Your task to perform on an android device: change the clock display to show seconds Image 0: 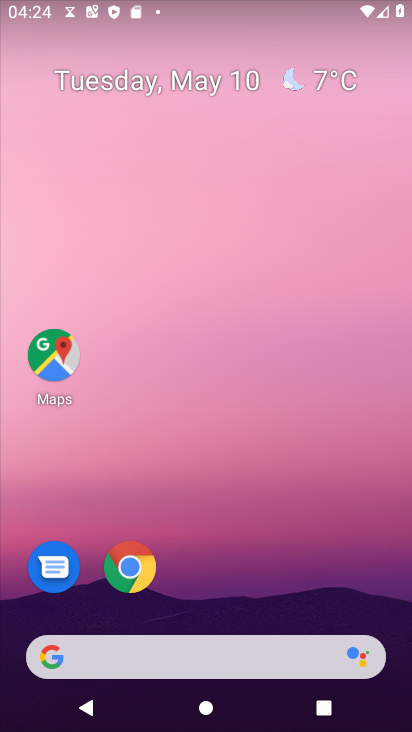
Step 0: drag from (244, 587) to (246, 32)
Your task to perform on an android device: change the clock display to show seconds Image 1: 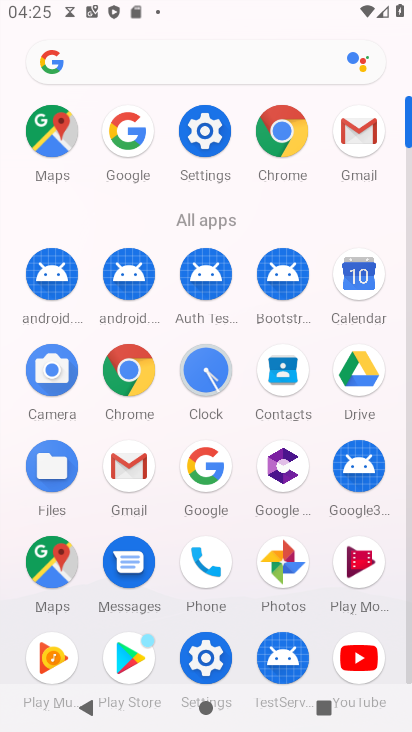
Step 1: click (205, 370)
Your task to perform on an android device: change the clock display to show seconds Image 2: 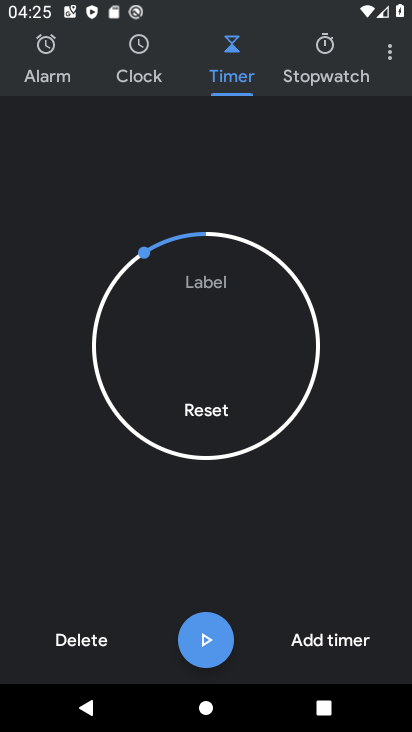
Step 2: click (392, 56)
Your task to perform on an android device: change the clock display to show seconds Image 3: 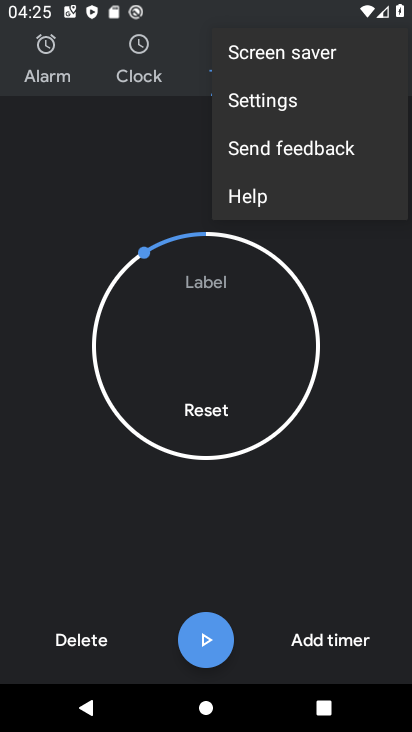
Step 3: click (272, 100)
Your task to perform on an android device: change the clock display to show seconds Image 4: 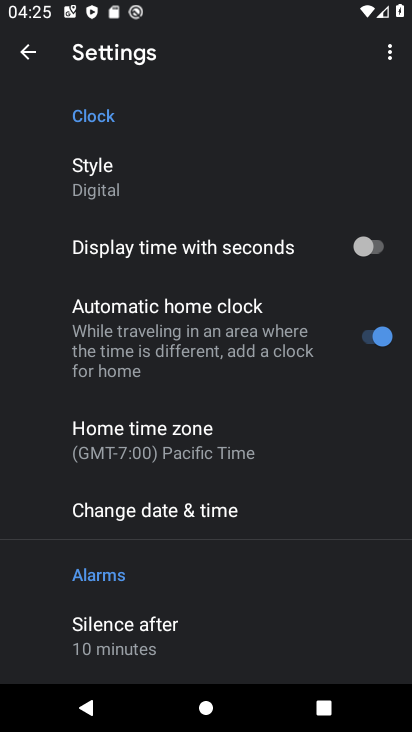
Step 4: click (371, 248)
Your task to perform on an android device: change the clock display to show seconds Image 5: 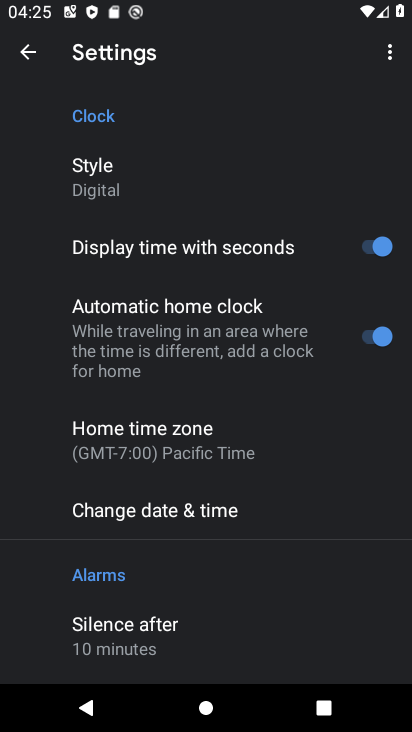
Step 5: task complete